Your task to perform on an android device: Open location settings Image 0: 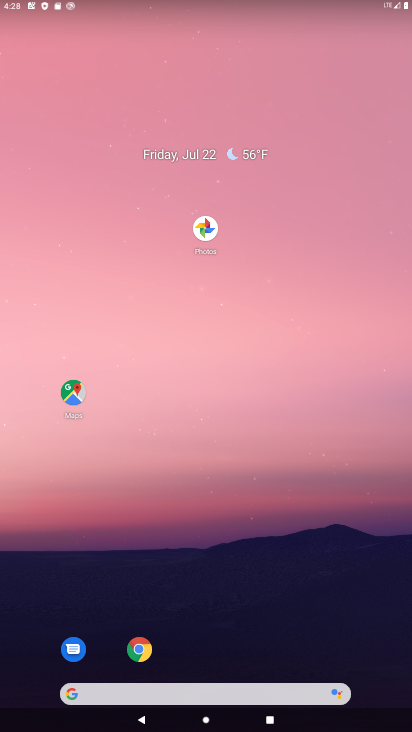
Step 0: drag from (252, 562) to (191, 94)
Your task to perform on an android device: Open location settings Image 1: 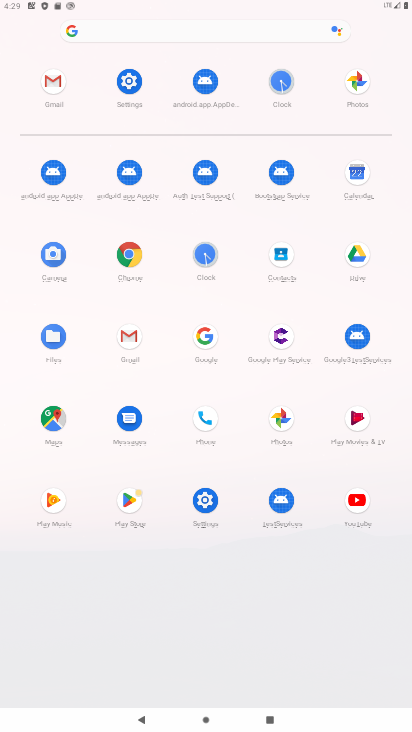
Step 1: click (125, 93)
Your task to perform on an android device: Open location settings Image 2: 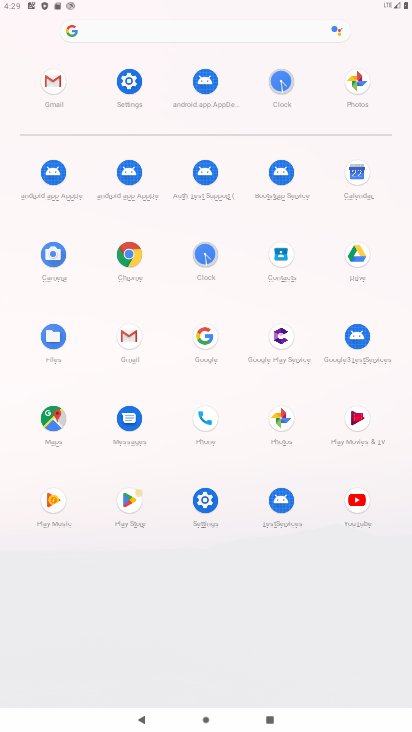
Step 2: click (127, 89)
Your task to perform on an android device: Open location settings Image 3: 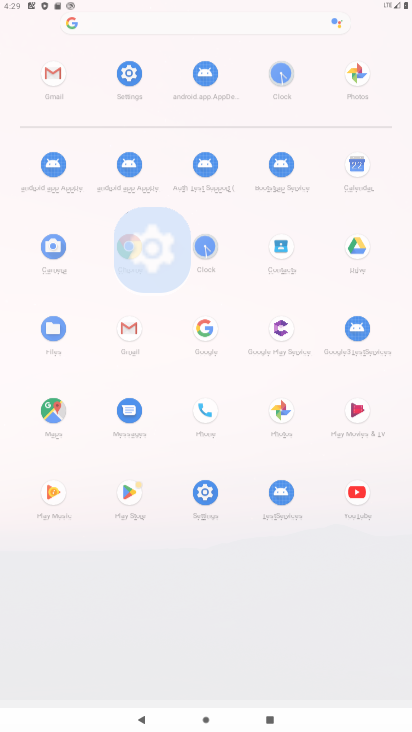
Step 3: click (129, 89)
Your task to perform on an android device: Open location settings Image 4: 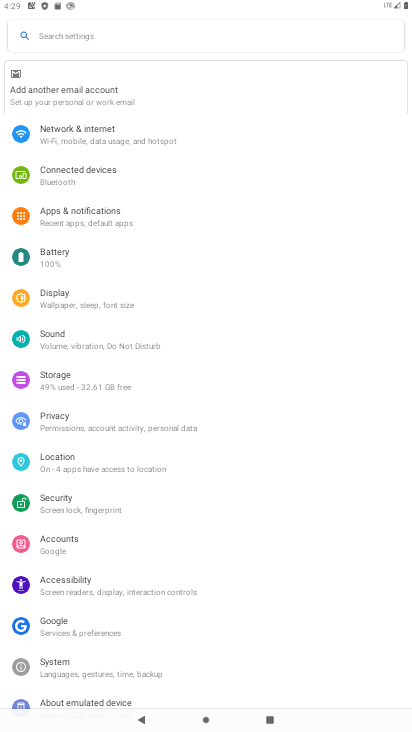
Step 4: click (130, 89)
Your task to perform on an android device: Open location settings Image 5: 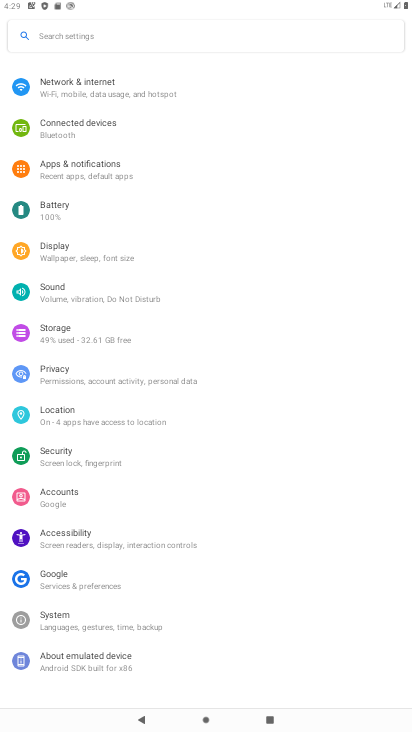
Step 5: click (130, 89)
Your task to perform on an android device: Open location settings Image 6: 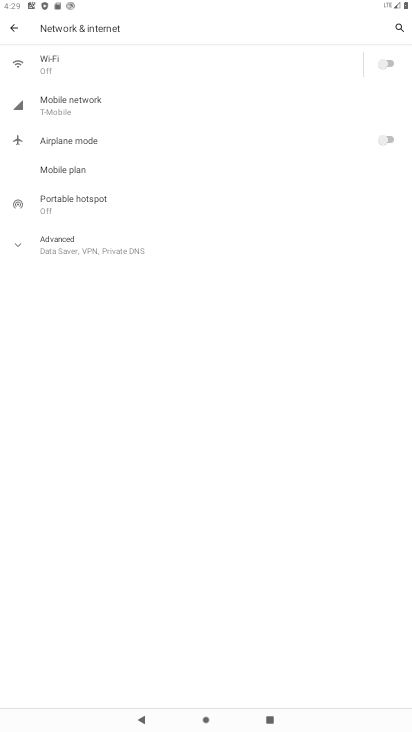
Step 6: click (12, 30)
Your task to perform on an android device: Open location settings Image 7: 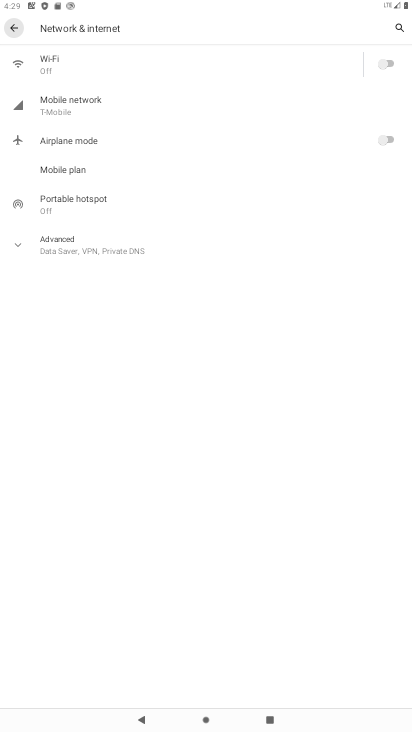
Step 7: click (15, 31)
Your task to perform on an android device: Open location settings Image 8: 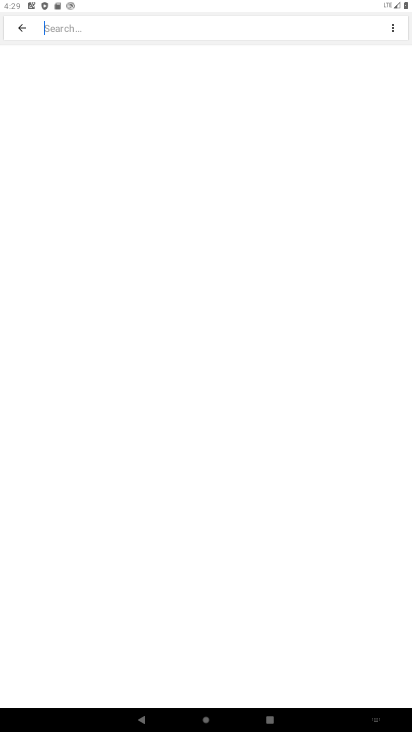
Step 8: click (24, 32)
Your task to perform on an android device: Open location settings Image 9: 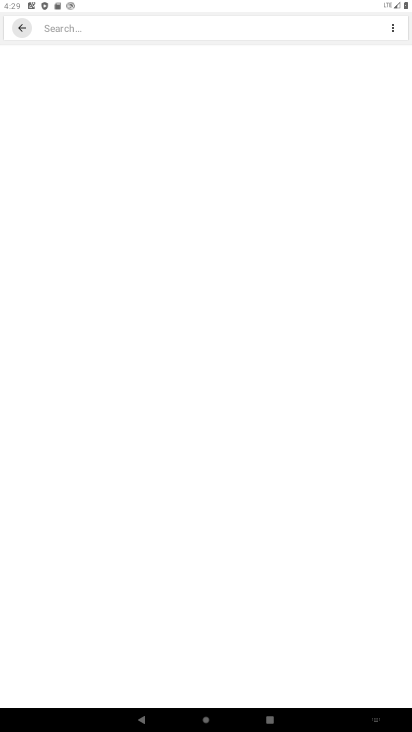
Step 9: click (24, 32)
Your task to perform on an android device: Open location settings Image 10: 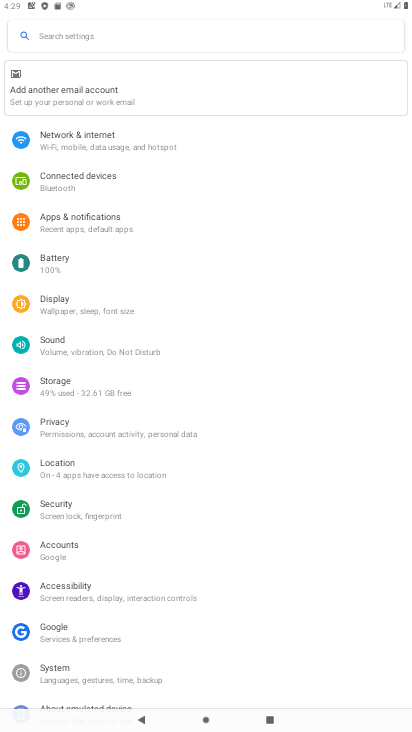
Step 10: click (66, 468)
Your task to perform on an android device: Open location settings Image 11: 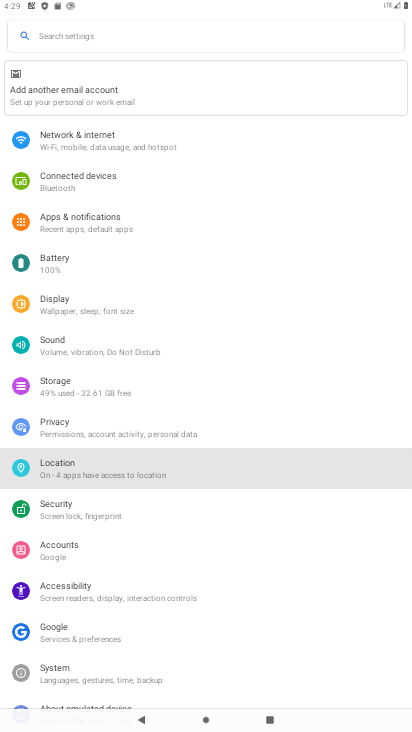
Step 11: click (65, 468)
Your task to perform on an android device: Open location settings Image 12: 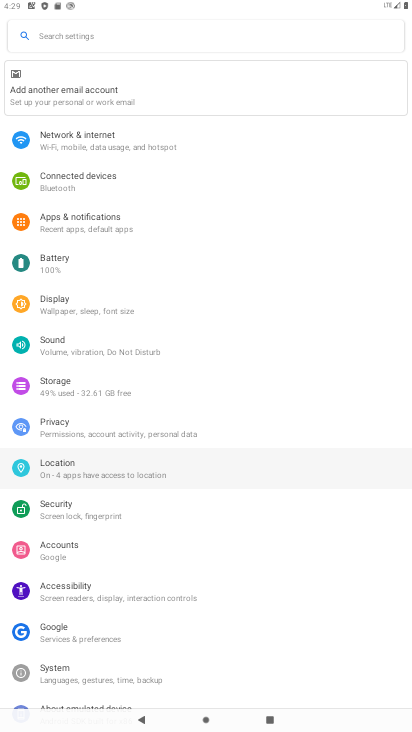
Step 12: click (65, 468)
Your task to perform on an android device: Open location settings Image 13: 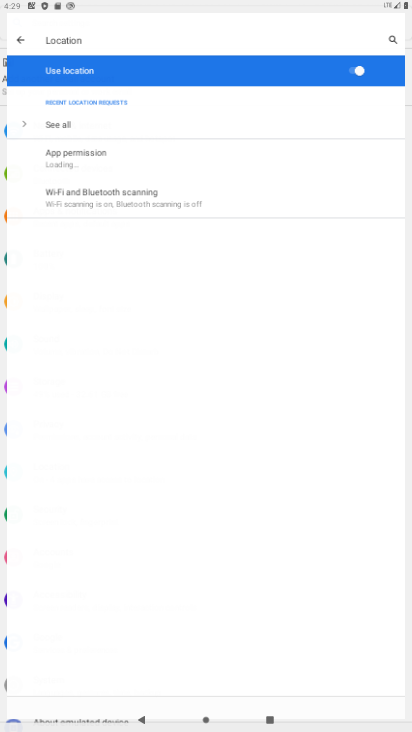
Step 13: click (65, 468)
Your task to perform on an android device: Open location settings Image 14: 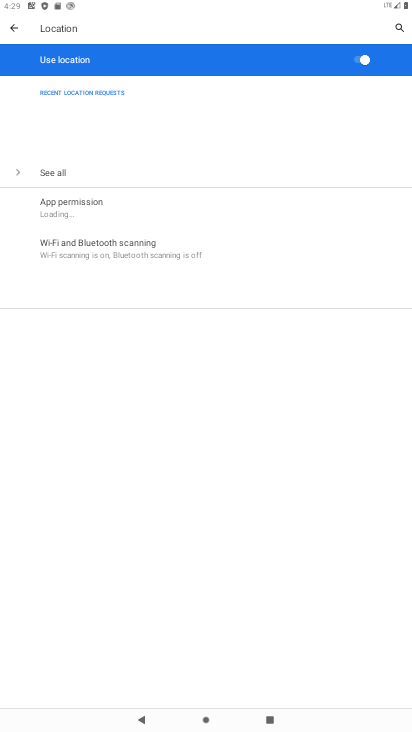
Step 14: click (65, 468)
Your task to perform on an android device: Open location settings Image 15: 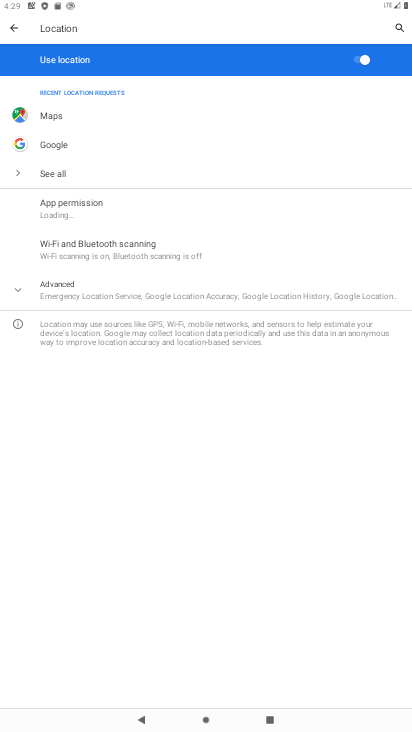
Step 15: click (65, 468)
Your task to perform on an android device: Open location settings Image 16: 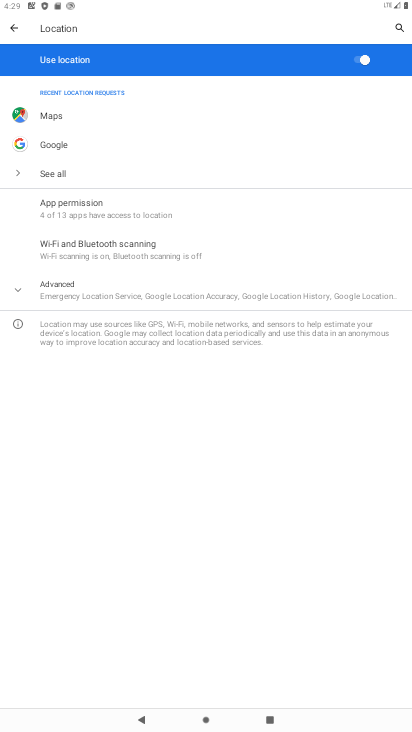
Step 16: click (81, 253)
Your task to perform on an android device: Open location settings Image 17: 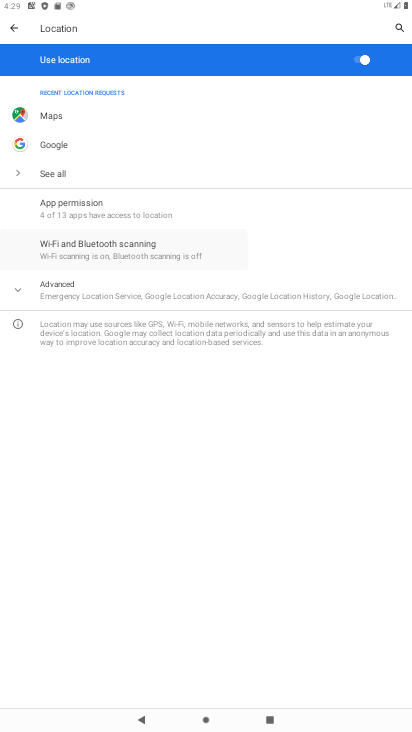
Step 17: click (80, 252)
Your task to perform on an android device: Open location settings Image 18: 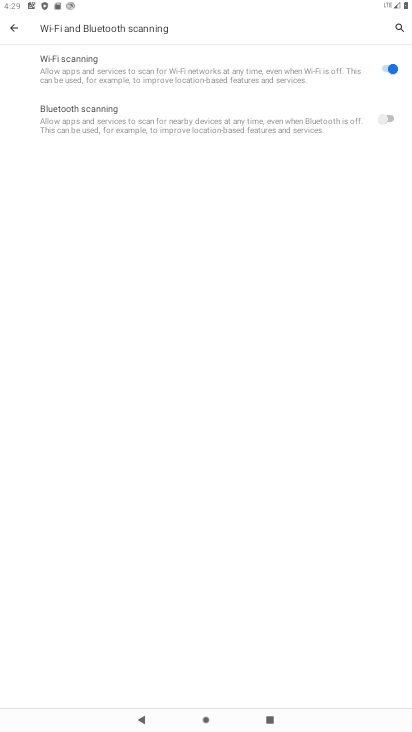
Step 18: click (16, 33)
Your task to perform on an android device: Open location settings Image 19: 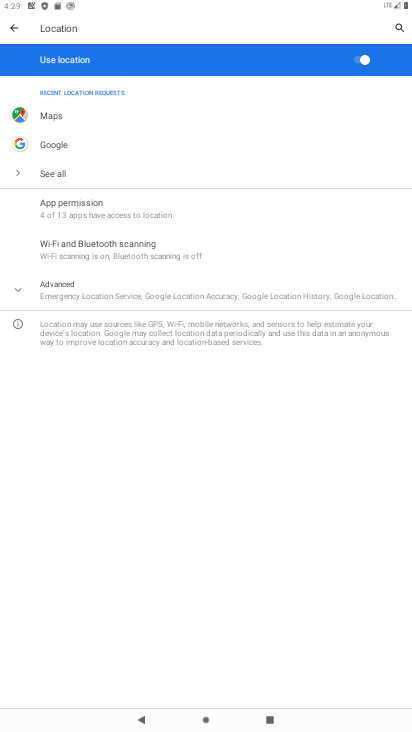
Step 19: click (71, 294)
Your task to perform on an android device: Open location settings Image 20: 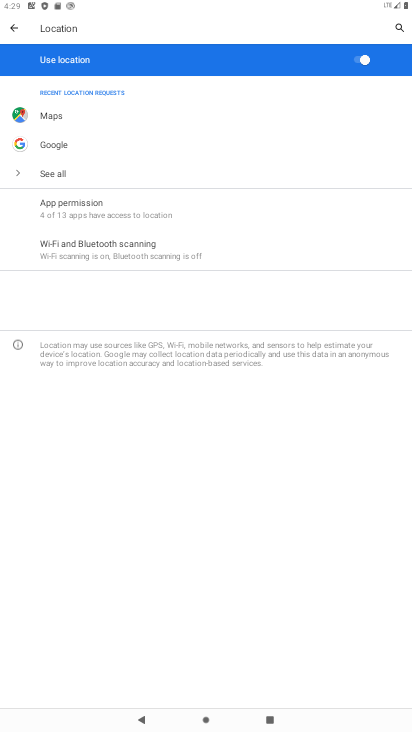
Step 20: click (70, 294)
Your task to perform on an android device: Open location settings Image 21: 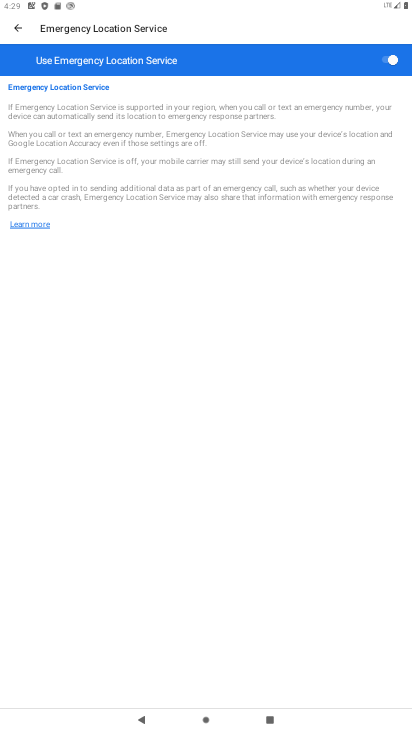
Step 21: click (12, 30)
Your task to perform on an android device: Open location settings Image 22: 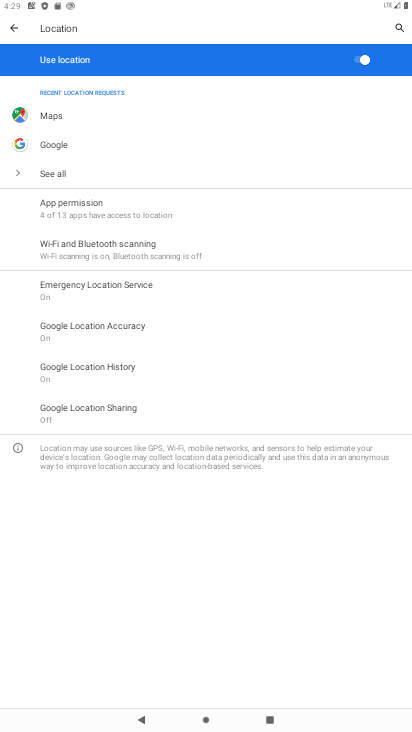
Step 22: task complete